Your task to perform on an android device: Do I have any events this weekend? Image 0: 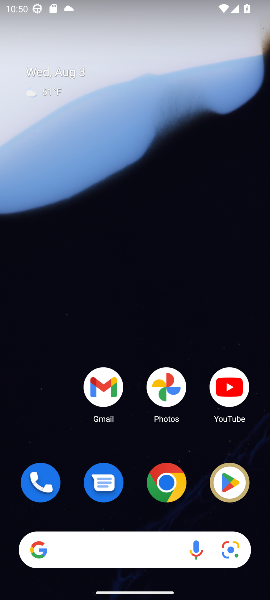
Step 0: drag from (134, 518) to (122, 46)
Your task to perform on an android device: Do I have any events this weekend? Image 1: 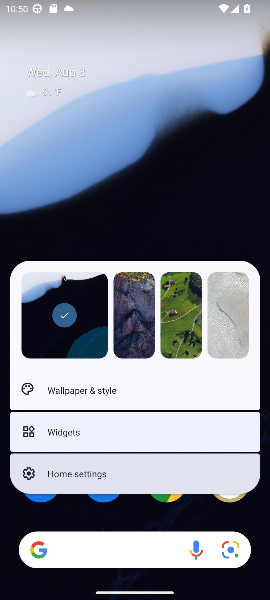
Step 1: click (109, 174)
Your task to perform on an android device: Do I have any events this weekend? Image 2: 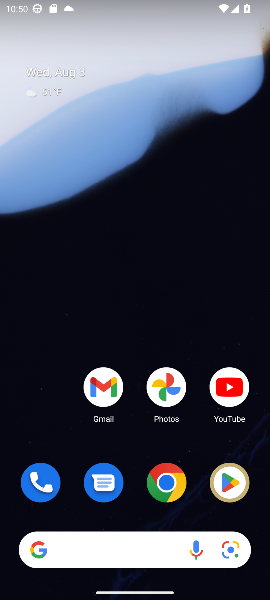
Step 2: drag from (131, 508) to (161, 145)
Your task to perform on an android device: Do I have any events this weekend? Image 3: 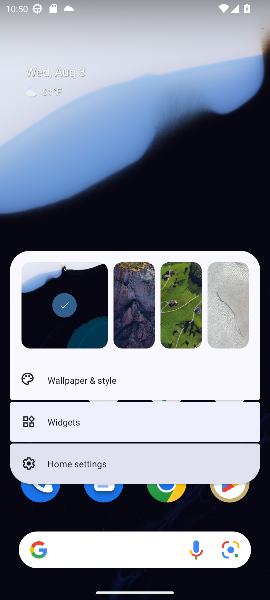
Step 3: click (161, 145)
Your task to perform on an android device: Do I have any events this weekend? Image 4: 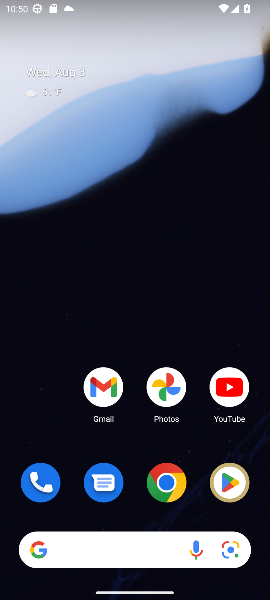
Step 4: drag from (126, 522) to (125, 118)
Your task to perform on an android device: Do I have any events this weekend? Image 5: 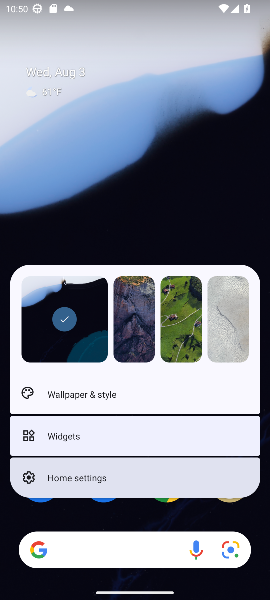
Step 5: click (125, 118)
Your task to perform on an android device: Do I have any events this weekend? Image 6: 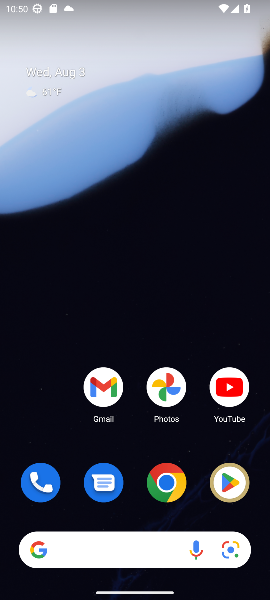
Step 6: drag from (63, 512) to (66, 99)
Your task to perform on an android device: Do I have any events this weekend? Image 7: 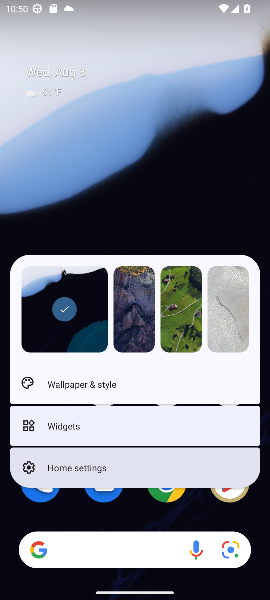
Step 7: click (66, 99)
Your task to perform on an android device: Do I have any events this weekend? Image 8: 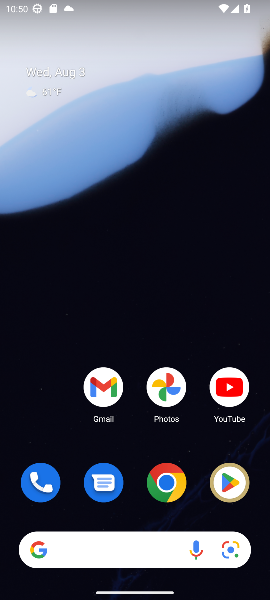
Step 8: task complete